Your task to perform on an android device: change the clock display to show seconds Image 0: 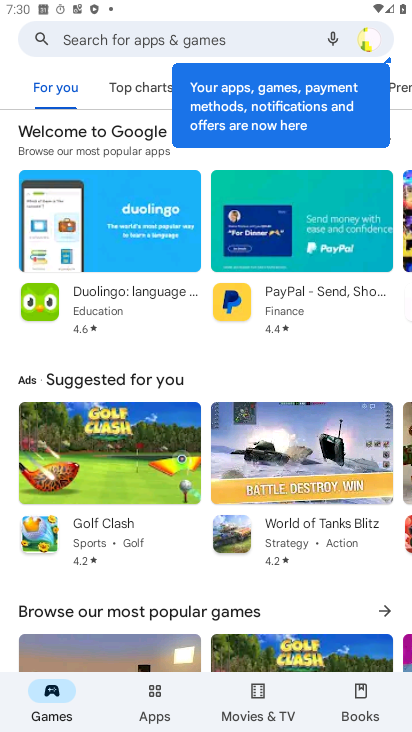
Step 0: press home button
Your task to perform on an android device: change the clock display to show seconds Image 1: 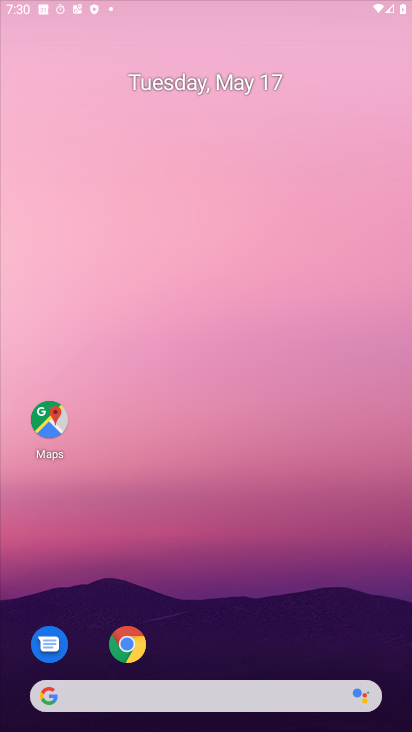
Step 1: drag from (355, 643) to (325, 117)
Your task to perform on an android device: change the clock display to show seconds Image 2: 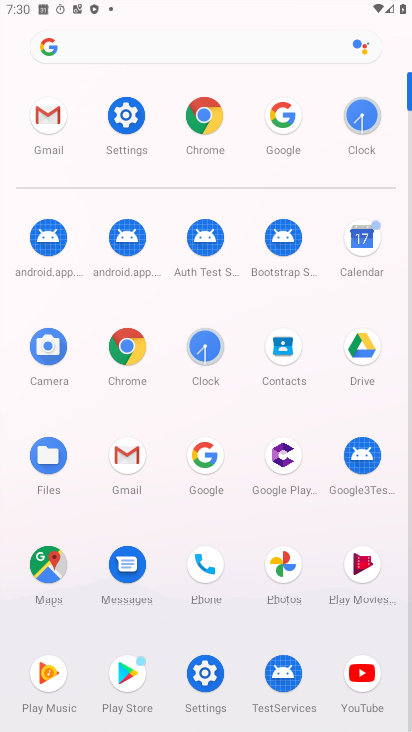
Step 2: click (357, 127)
Your task to perform on an android device: change the clock display to show seconds Image 3: 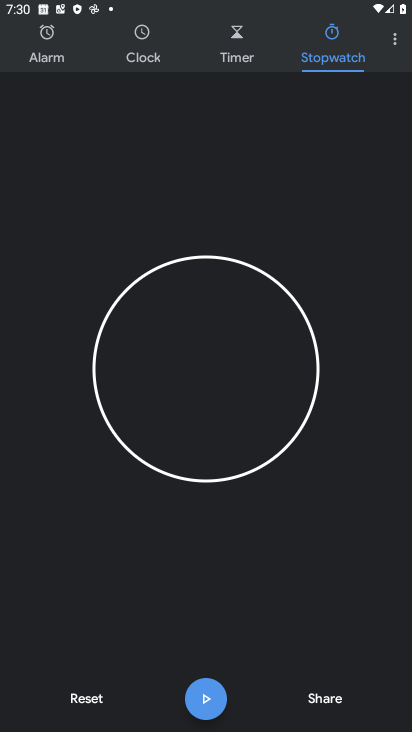
Step 3: click (395, 33)
Your task to perform on an android device: change the clock display to show seconds Image 4: 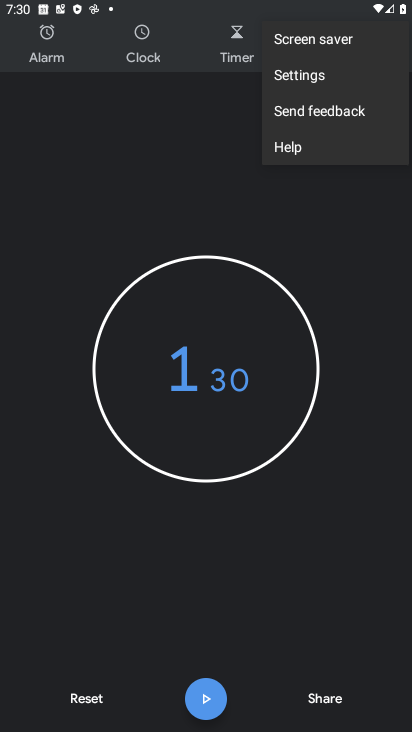
Step 4: click (345, 74)
Your task to perform on an android device: change the clock display to show seconds Image 5: 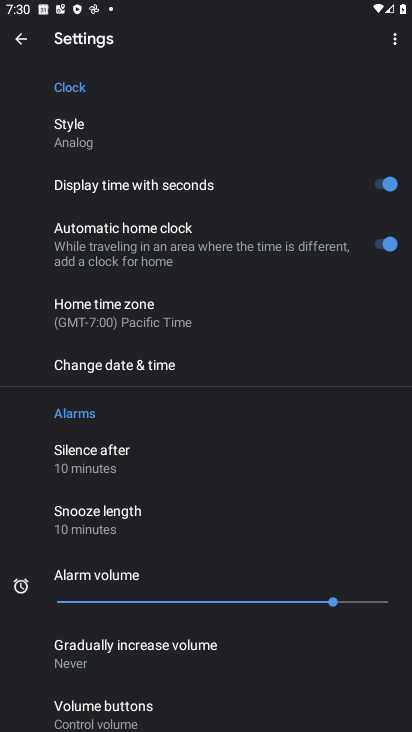
Step 5: click (260, 175)
Your task to perform on an android device: change the clock display to show seconds Image 6: 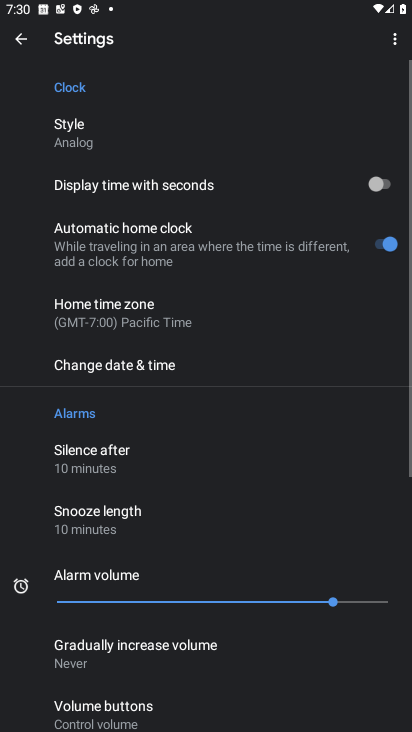
Step 6: task complete